Your task to perform on an android device: Add razer blade to the cart on bestbuy Image 0: 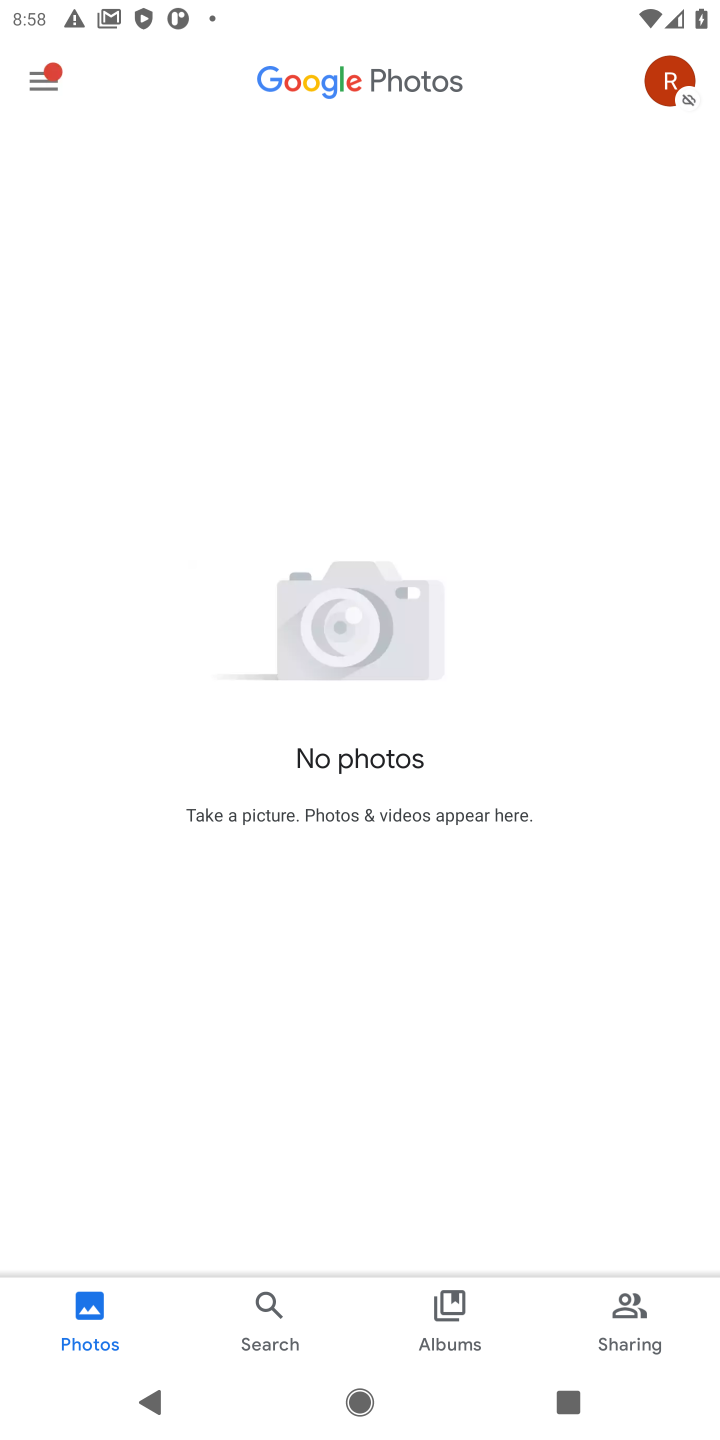
Step 0: press home button
Your task to perform on an android device: Add razer blade to the cart on bestbuy Image 1: 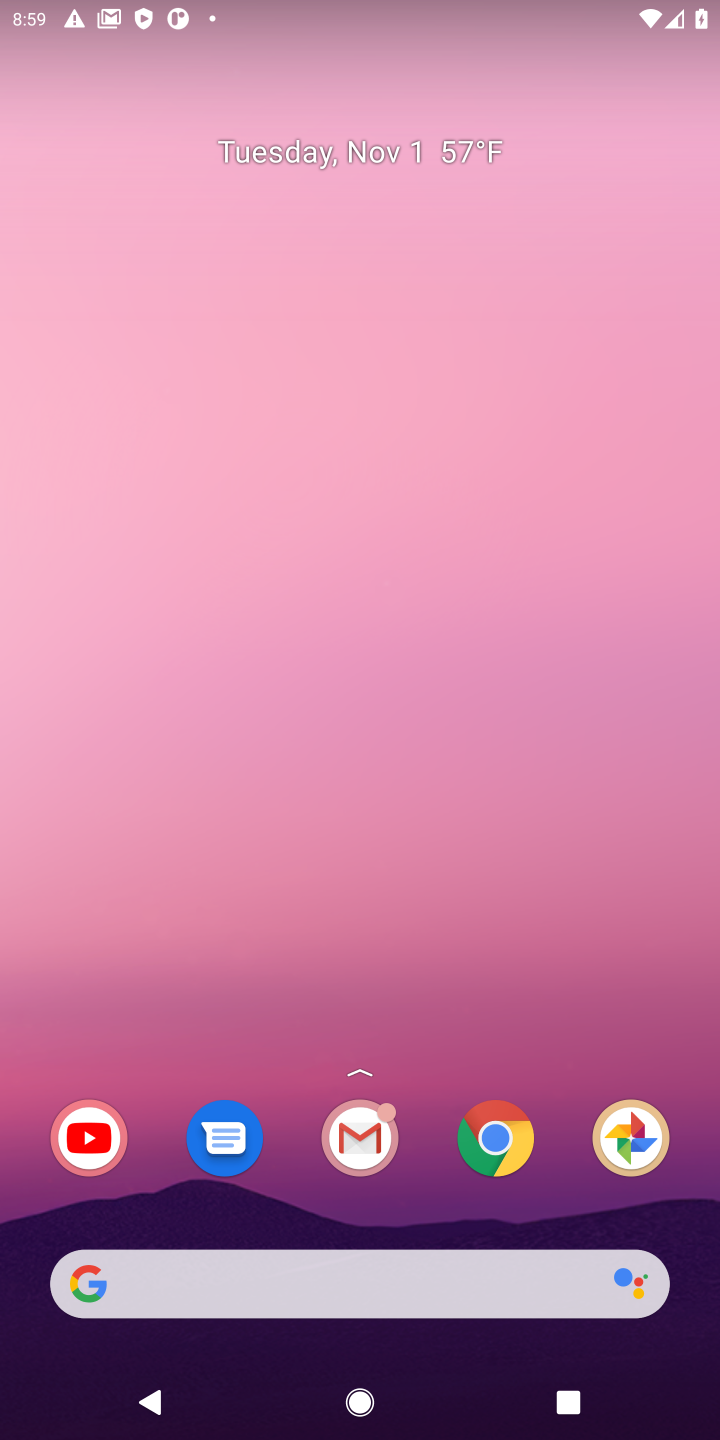
Step 1: click (489, 1144)
Your task to perform on an android device: Add razer blade to the cart on bestbuy Image 2: 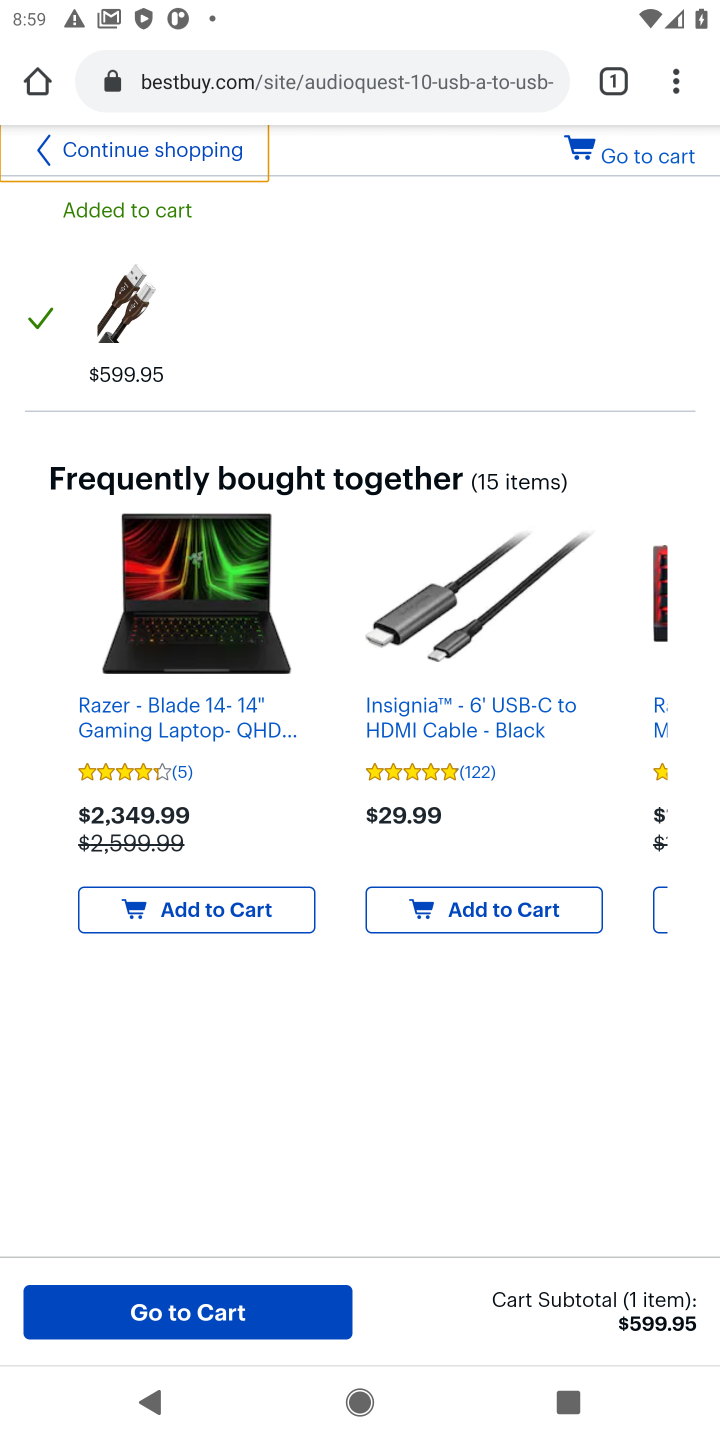
Step 2: click (297, 96)
Your task to perform on an android device: Add razer blade to the cart on bestbuy Image 3: 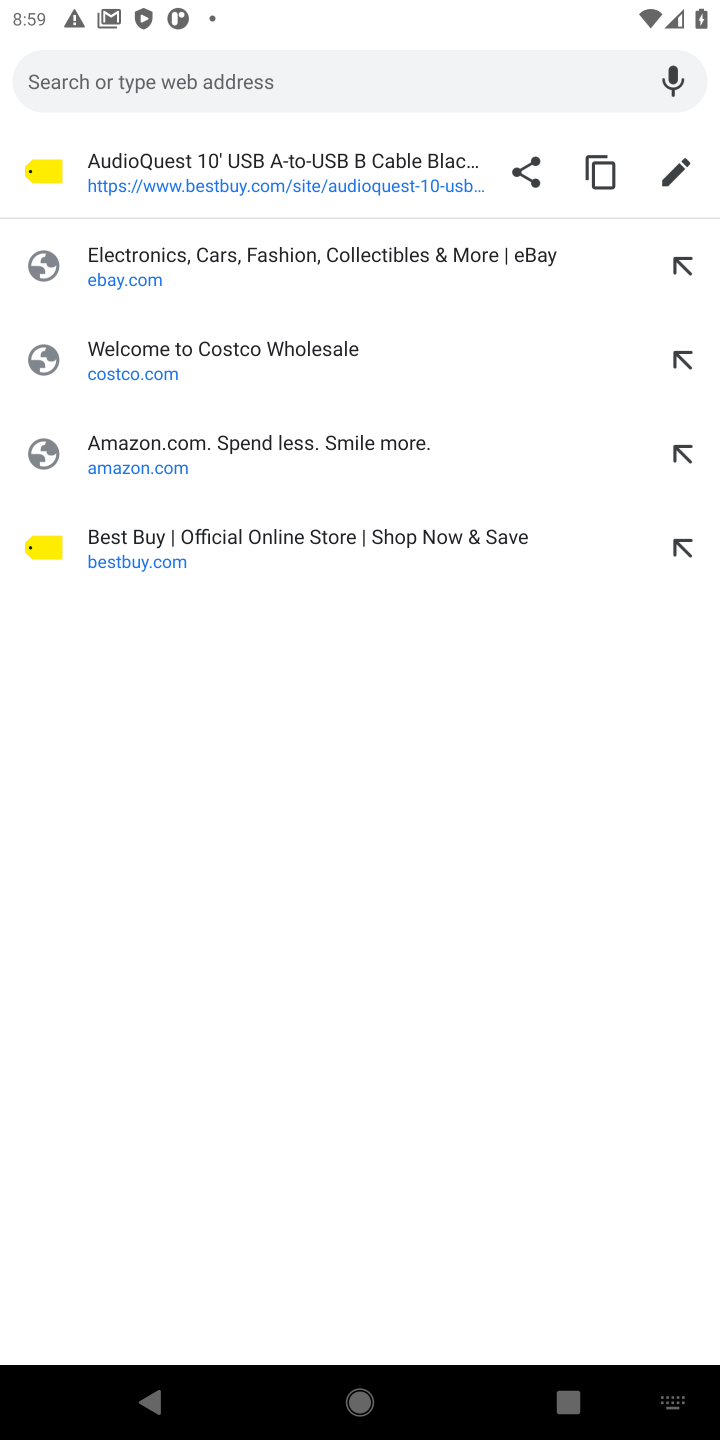
Step 3: type ".com bestbuy"
Your task to perform on an android device: Add razer blade to the cart on bestbuy Image 4: 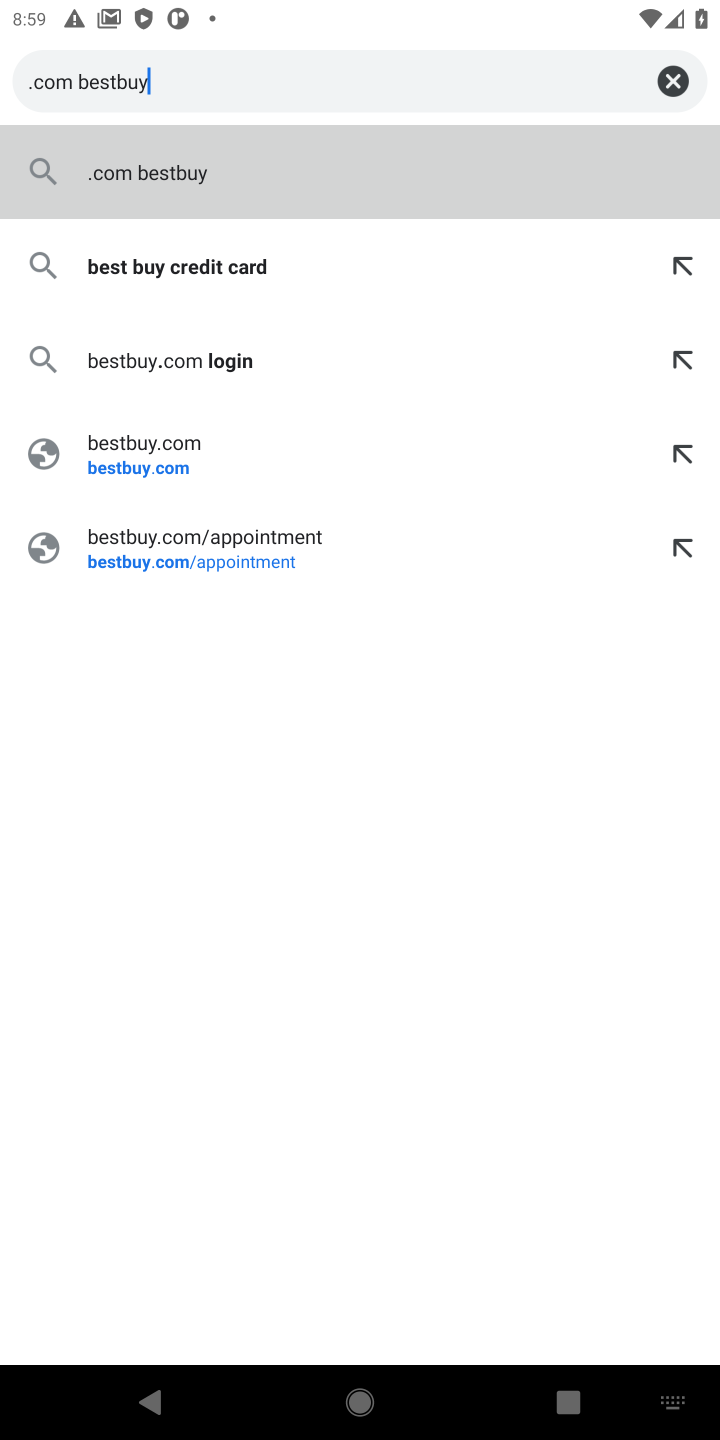
Step 4: click (136, 478)
Your task to perform on an android device: Add razer blade to the cart on bestbuy Image 5: 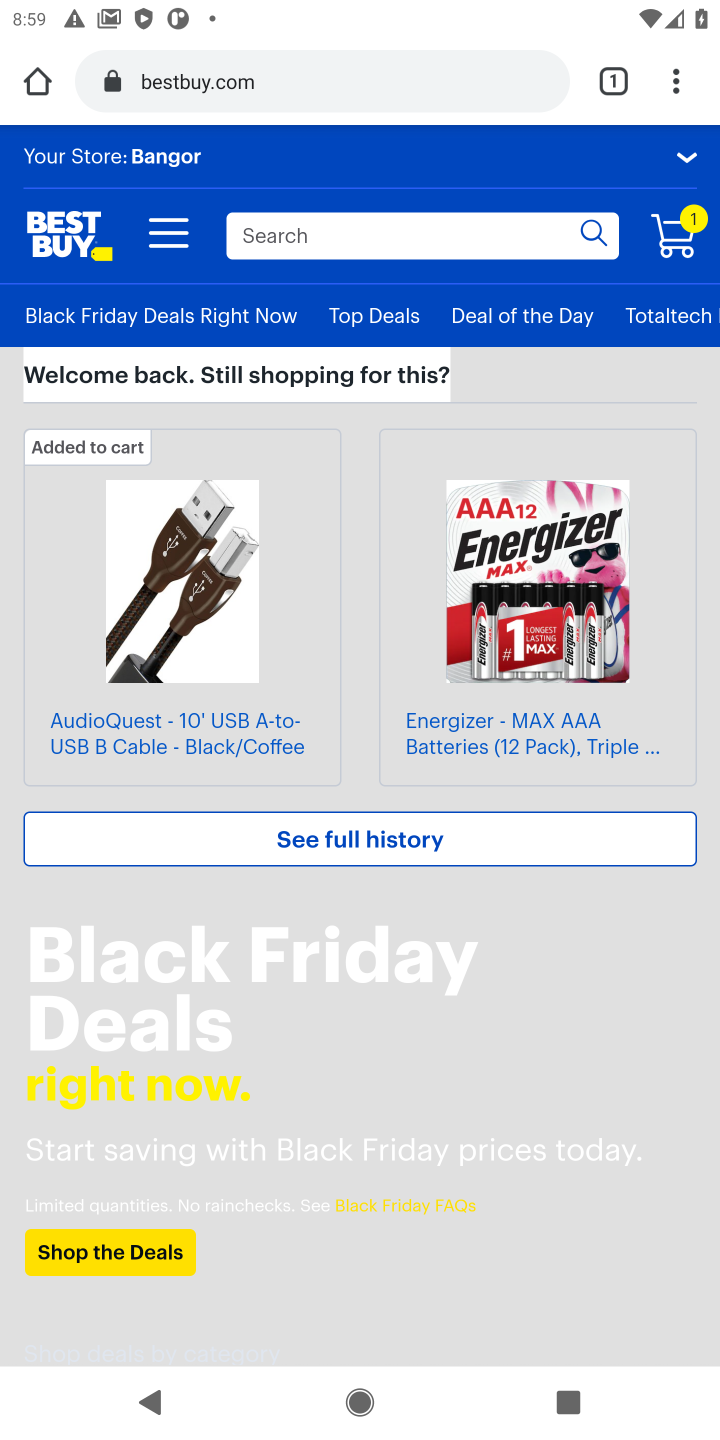
Step 5: click (306, 253)
Your task to perform on an android device: Add razer blade to the cart on bestbuy Image 6: 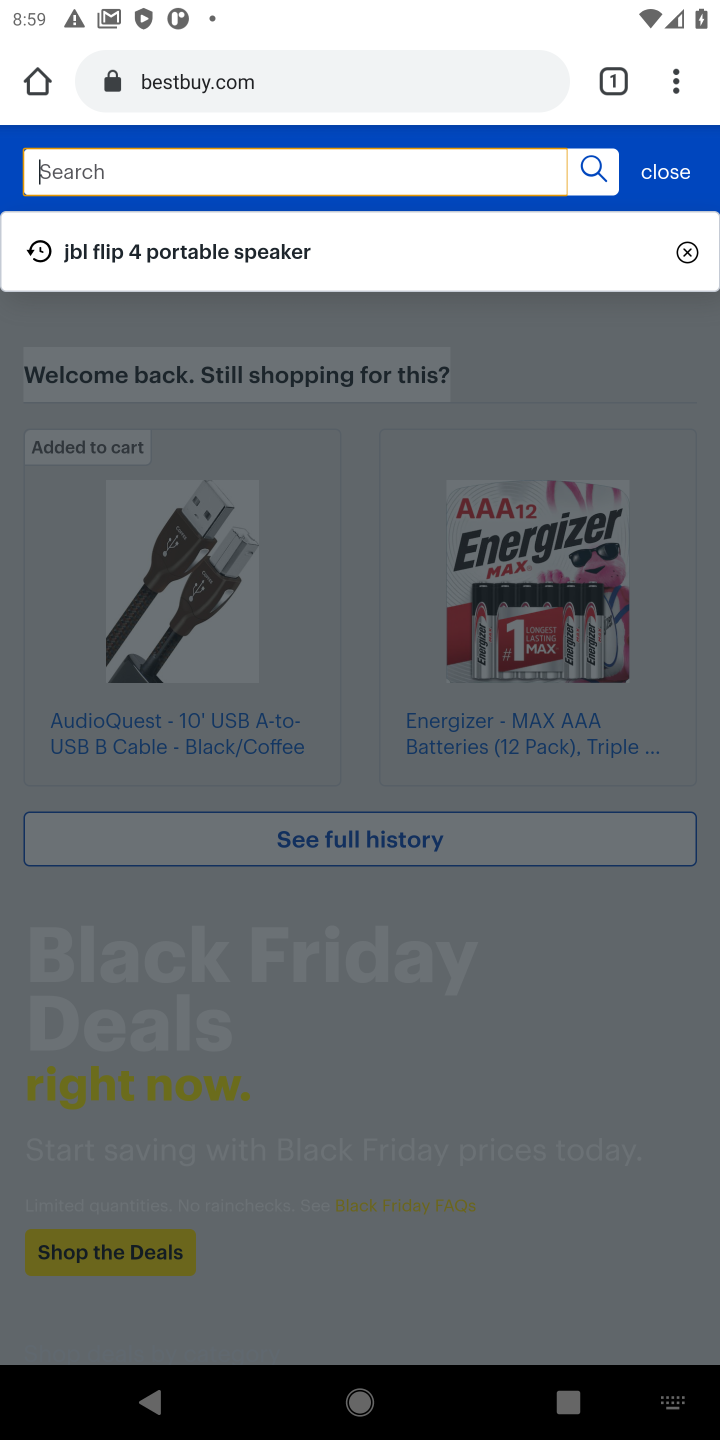
Step 6: type "razer blade"
Your task to perform on an android device: Add razer blade to the cart on bestbuy Image 7: 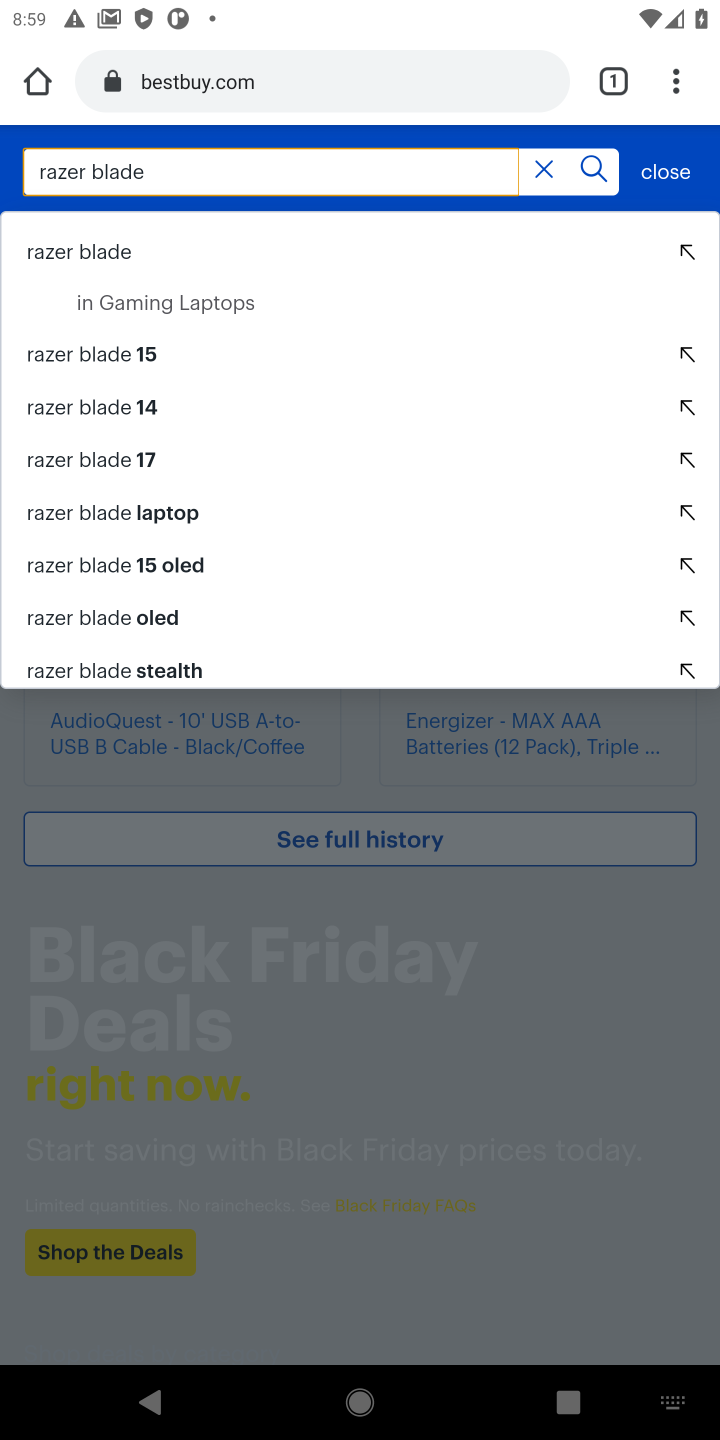
Step 7: click (92, 257)
Your task to perform on an android device: Add razer blade to the cart on bestbuy Image 8: 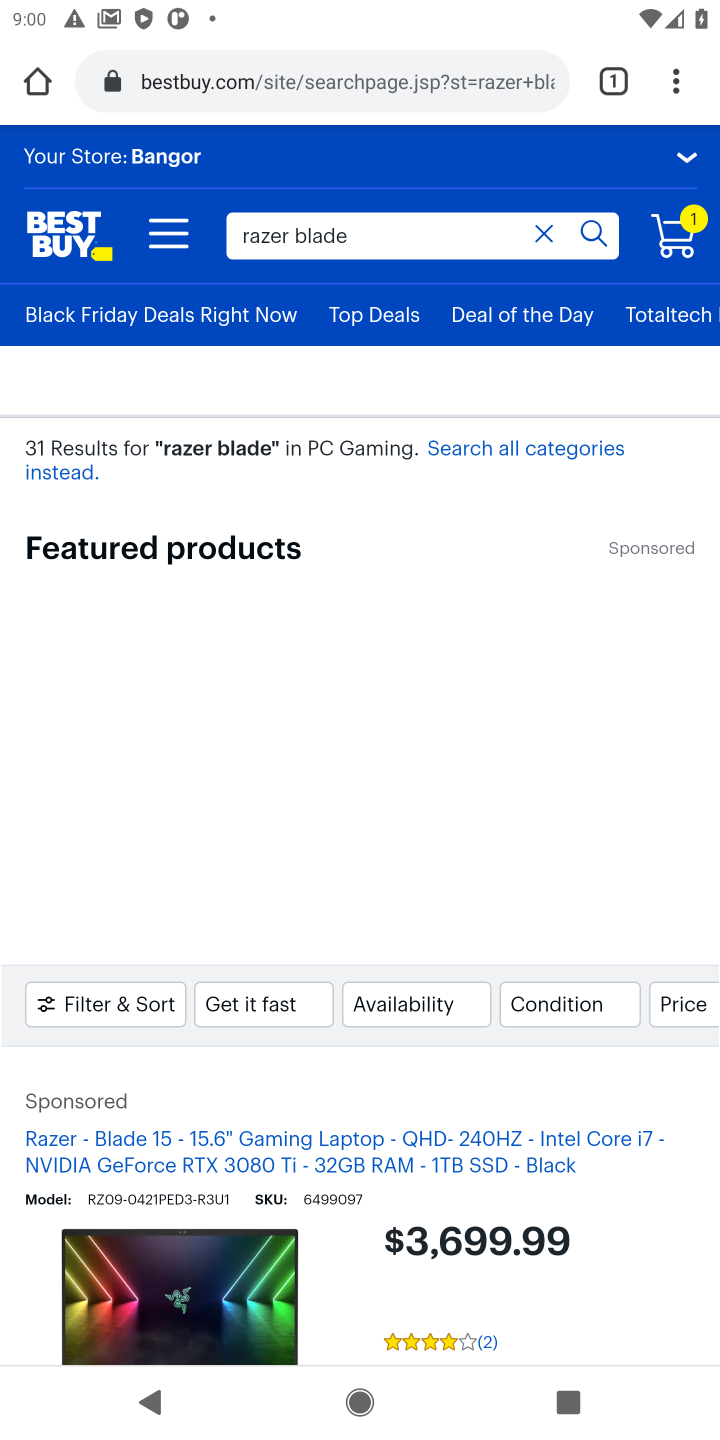
Step 8: click (323, 1245)
Your task to perform on an android device: Add razer blade to the cart on bestbuy Image 9: 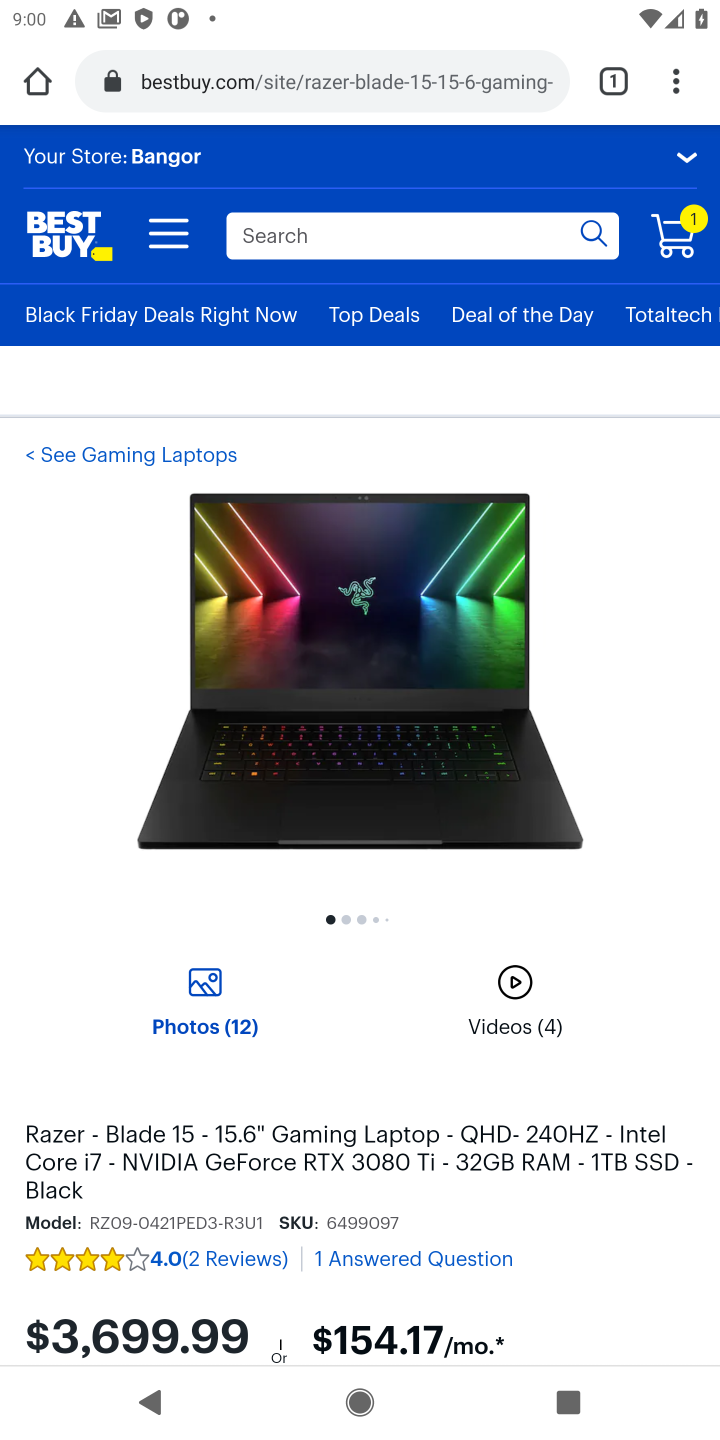
Step 9: drag from (341, 1218) to (473, 569)
Your task to perform on an android device: Add razer blade to the cart on bestbuy Image 10: 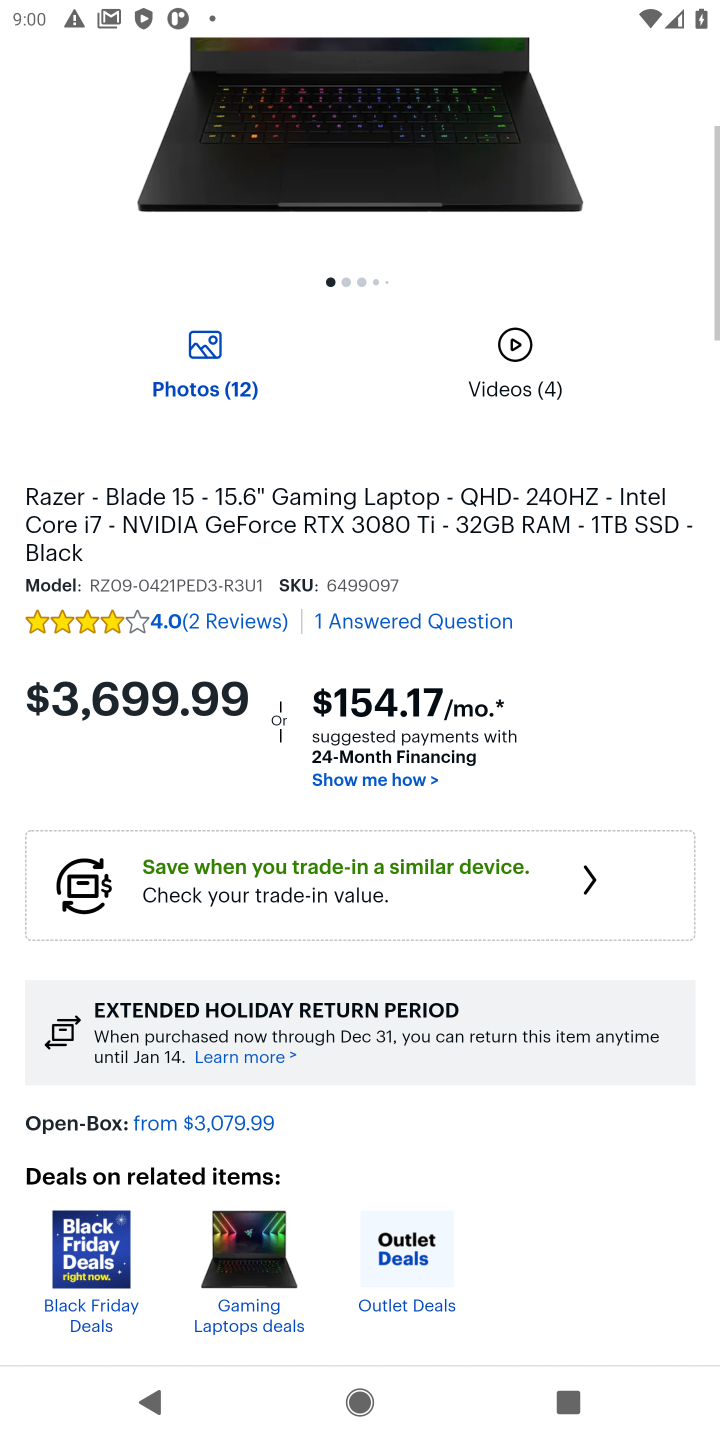
Step 10: drag from (397, 1120) to (447, 554)
Your task to perform on an android device: Add razer blade to the cart on bestbuy Image 11: 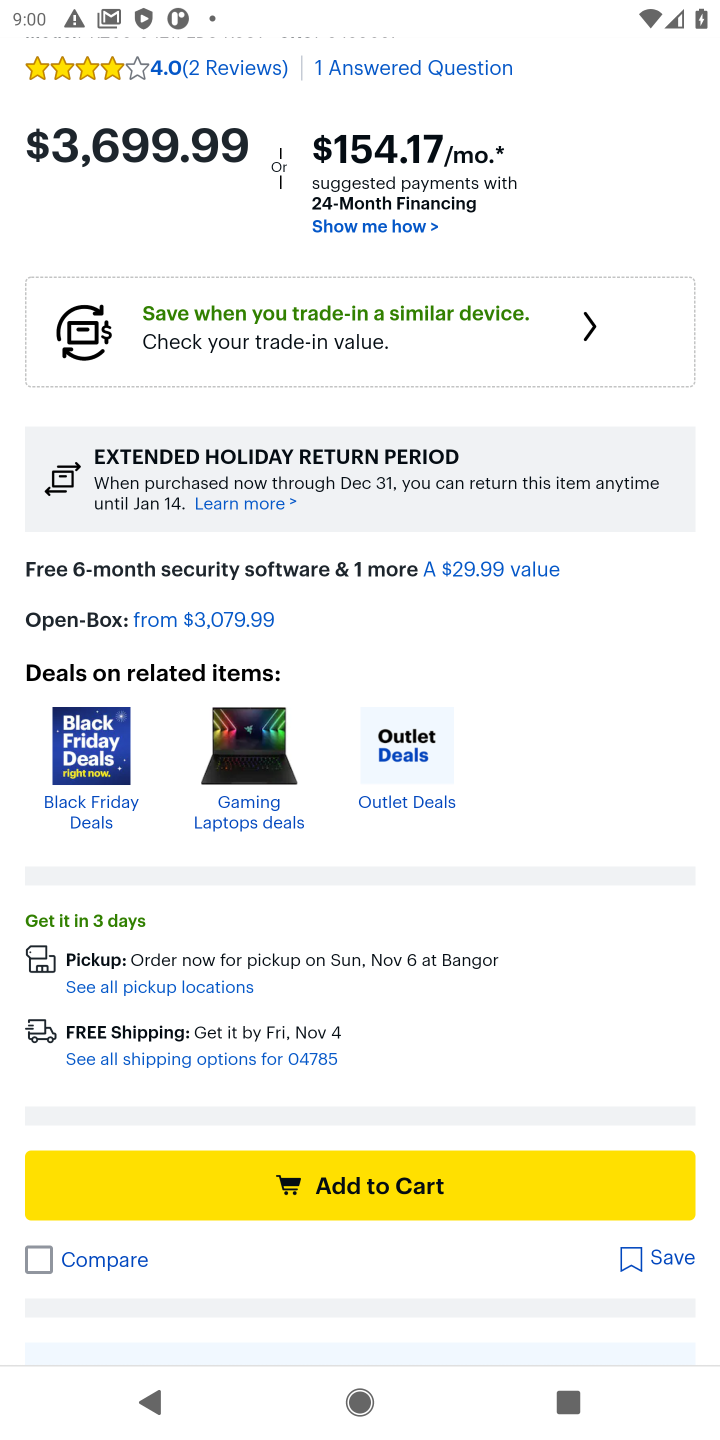
Step 11: click (365, 1185)
Your task to perform on an android device: Add razer blade to the cart on bestbuy Image 12: 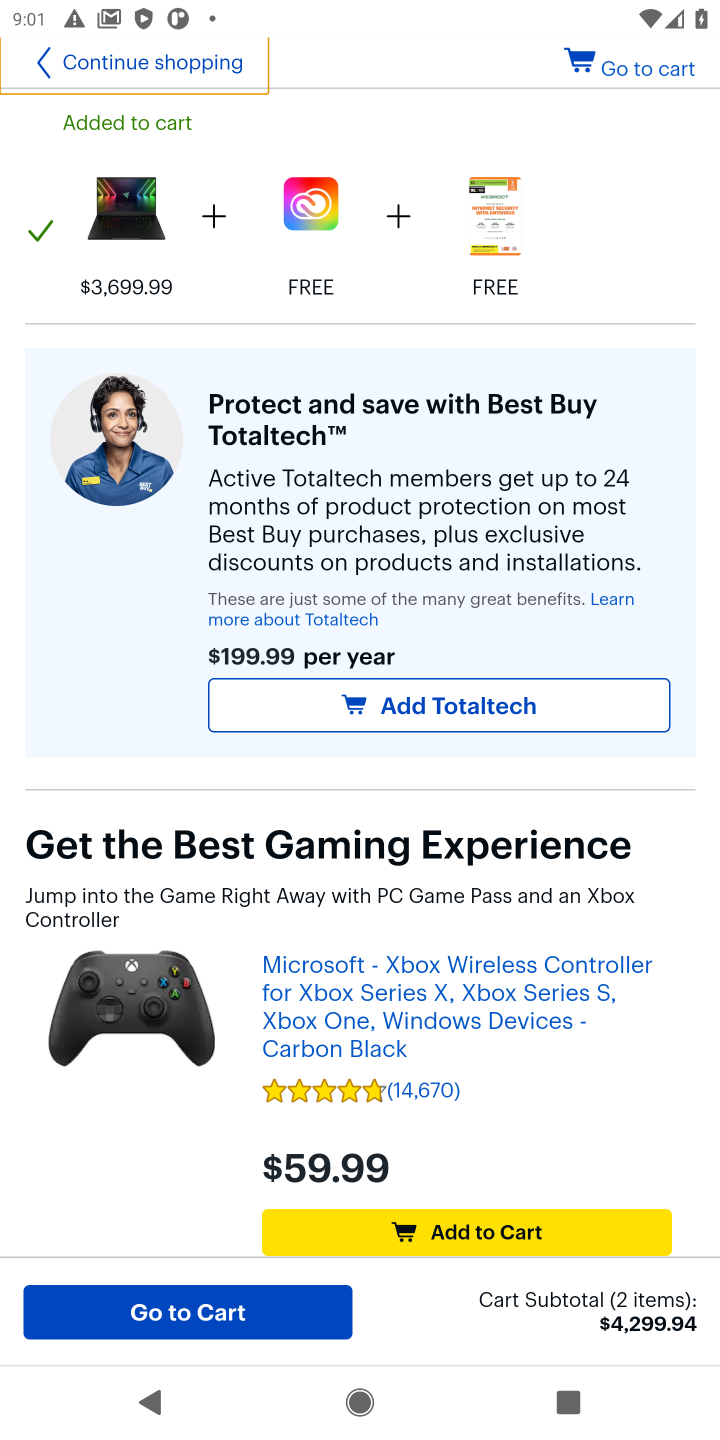
Step 12: task complete